Your task to perform on an android device: Open the stopwatch Image 0: 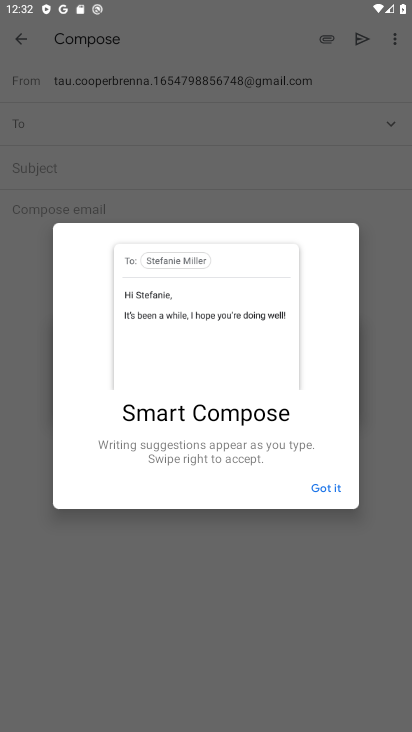
Step 0: press home button
Your task to perform on an android device: Open the stopwatch Image 1: 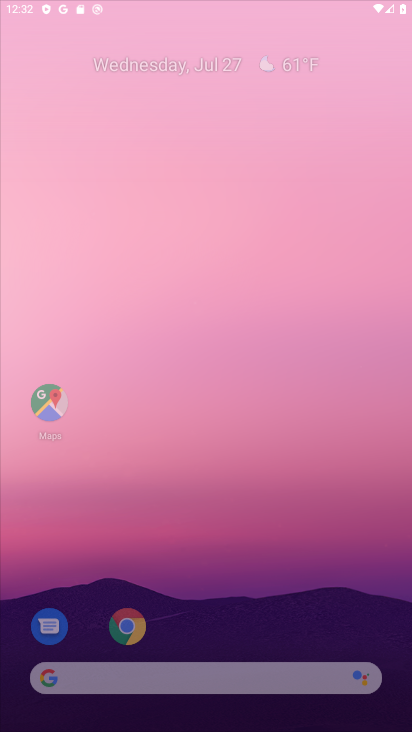
Step 1: drag from (227, 647) to (308, 171)
Your task to perform on an android device: Open the stopwatch Image 2: 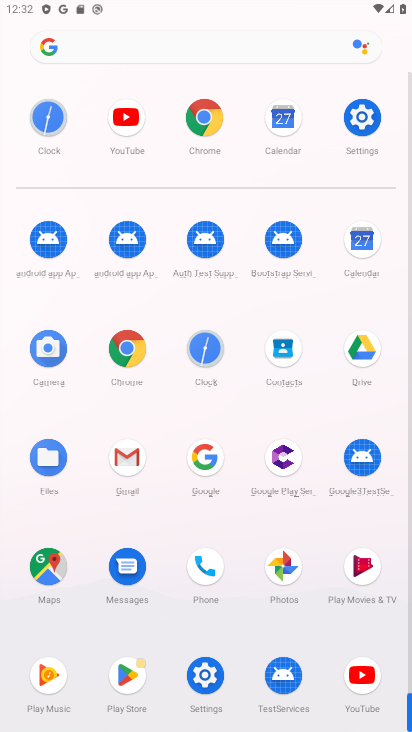
Step 2: click (215, 352)
Your task to perform on an android device: Open the stopwatch Image 3: 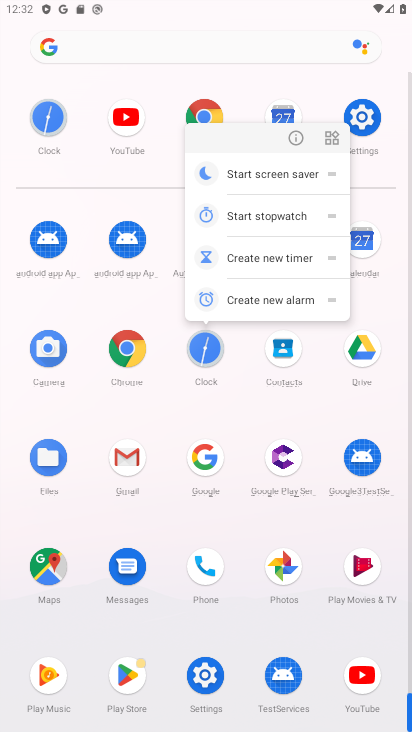
Step 3: click (298, 135)
Your task to perform on an android device: Open the stopwatch Image 4: 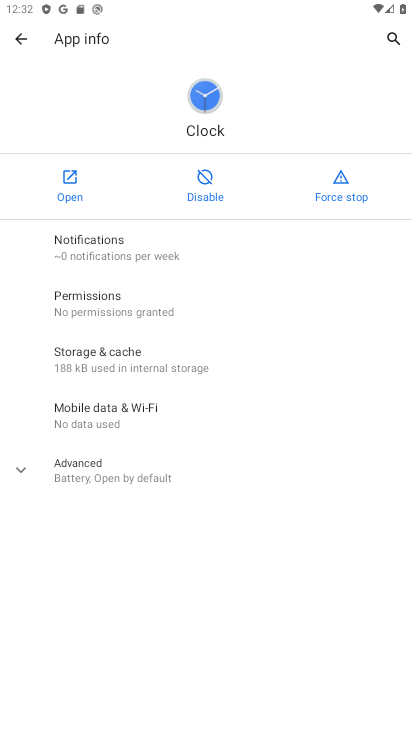
Step 4: click (76, 183)
Your task to perform on an android device: Open the stopwatch Image 5: 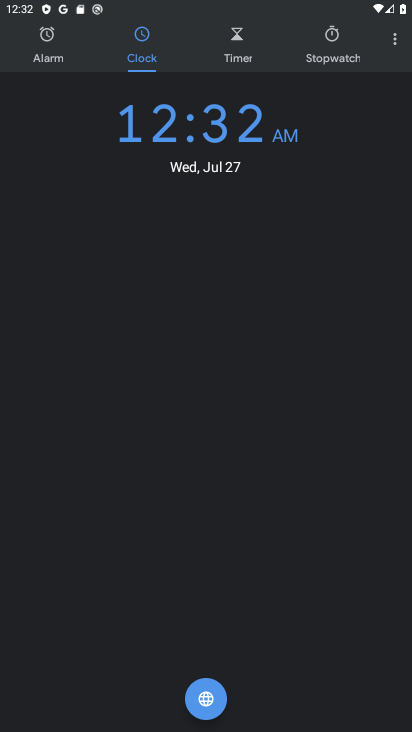
Step 5: click (333, 46)
Your task to perform on an android device: Open the stopwatch Image 6: 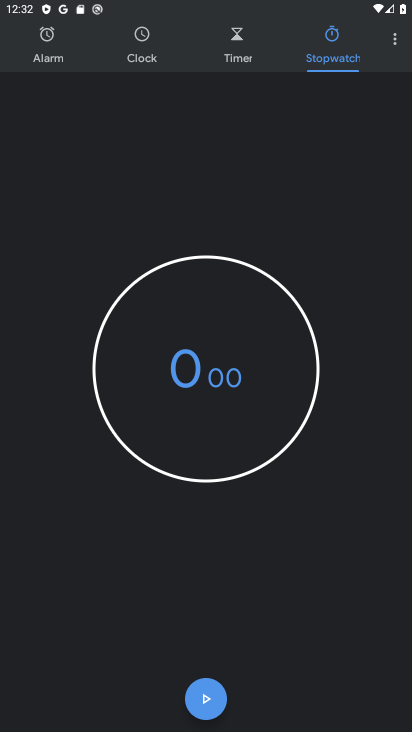
Step 6: click (205, 696)
Your task to perform on an android device: Open the stopwatch Image 7: 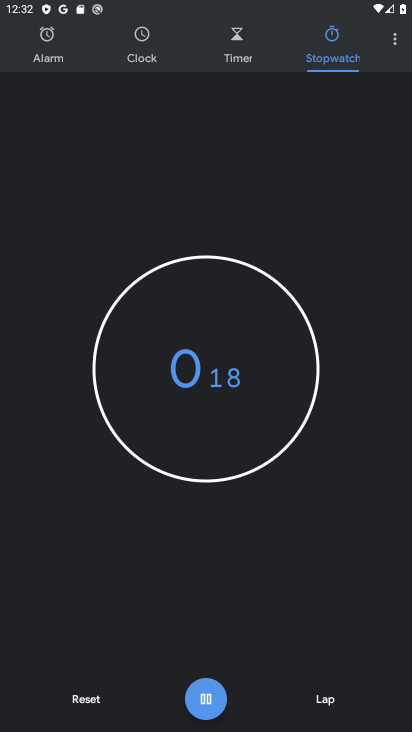
Step 7: task complete